Your task to perform on an android device: find photos in the google photos app Image 0: 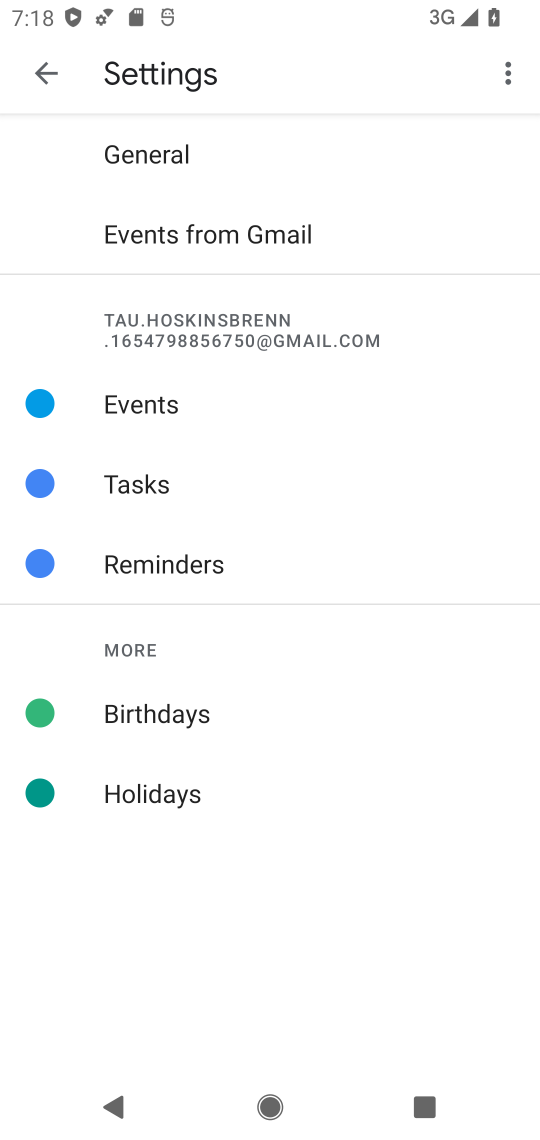
Step 0: press home button
Your task to perform on an android device: find photos in the google photos app Image 1: 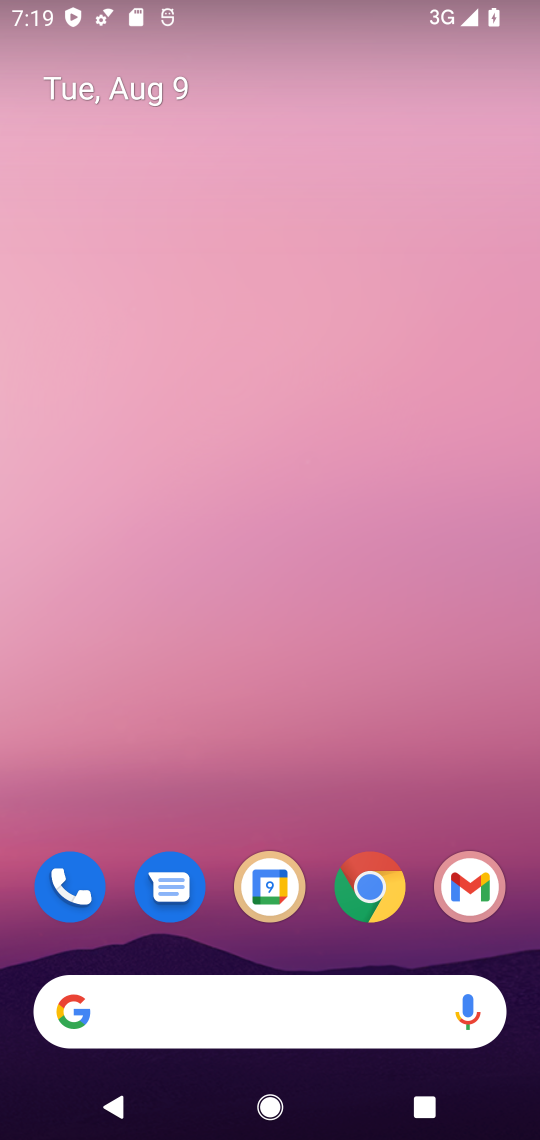
Step 1: drag from (289, 779) to (312, 5)
Your task to perform on an android device: find photos in the google photos app Image 2: 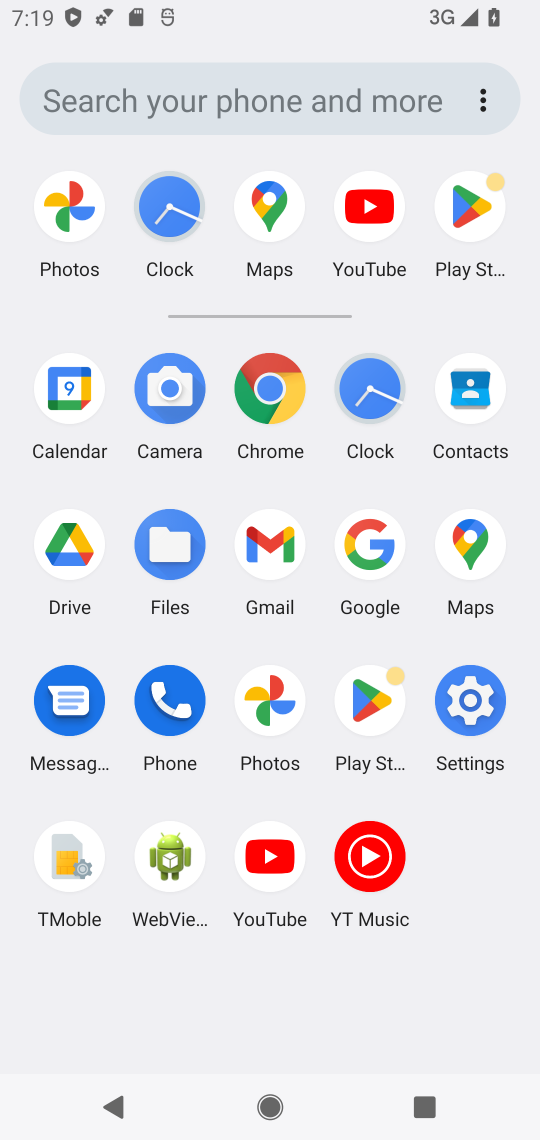
Step 2: click (275, 698)
Your task to perform on an android device: find photos in the google photos app Image 3: 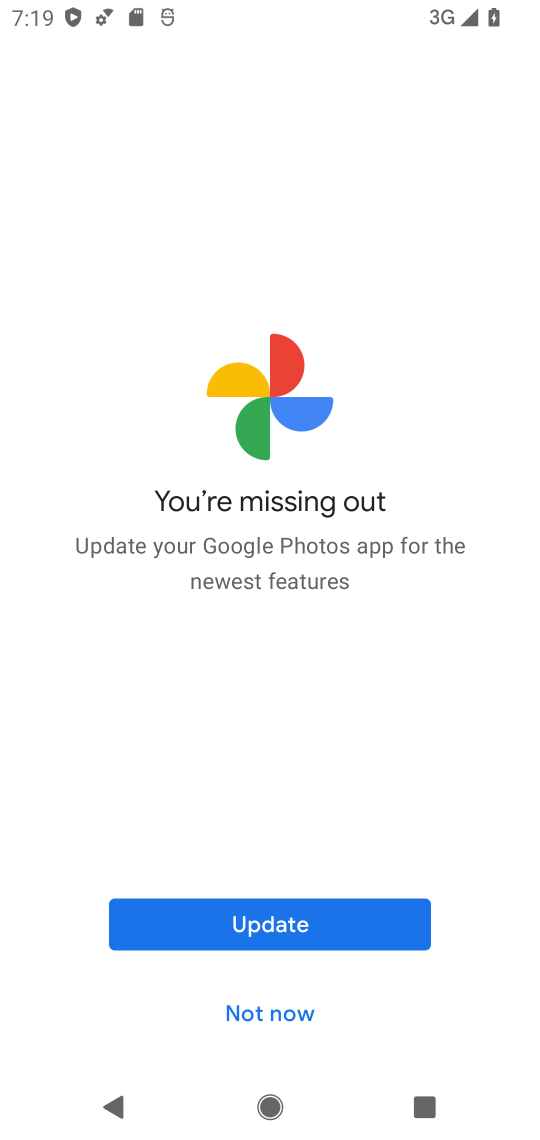
Step 3: click (265, 1003)
Your task to perform on an android device: find photos in the google photos app Image 4: 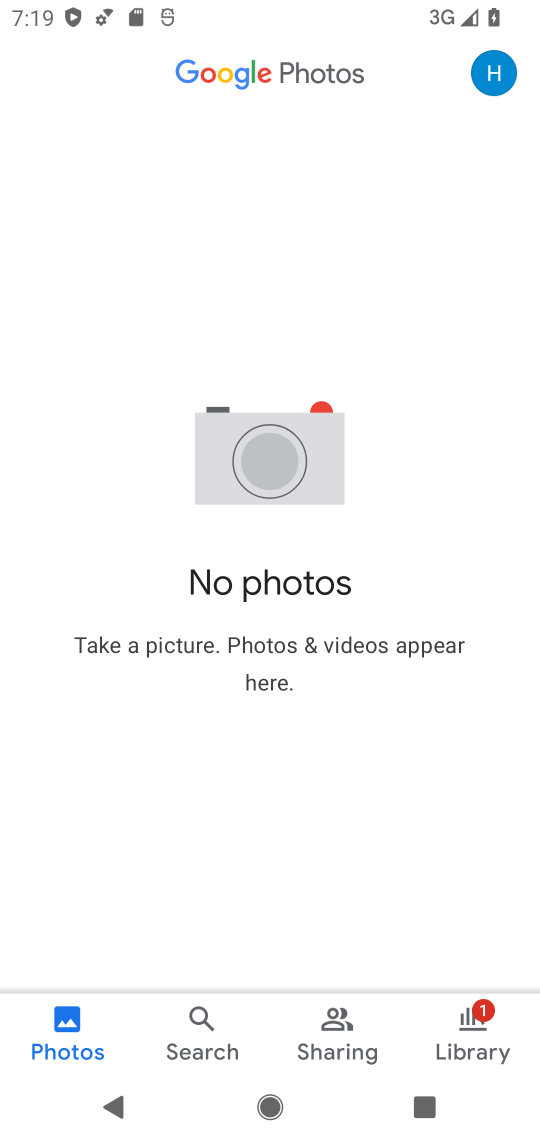
Step 4: task complete